Your task to perform on an android device: Search for pizza restaurants on Maps Image 0: 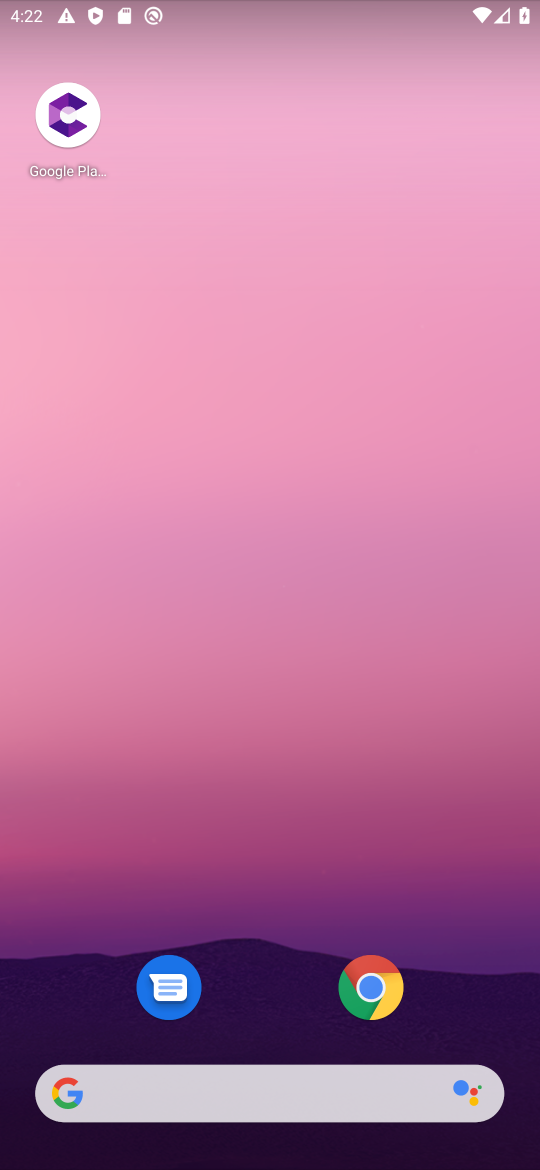
Step 0: drag from (264, 985) to (318, 30)
Your task to perform on an android device: Search for pizza restaurants on Maps Image 1: 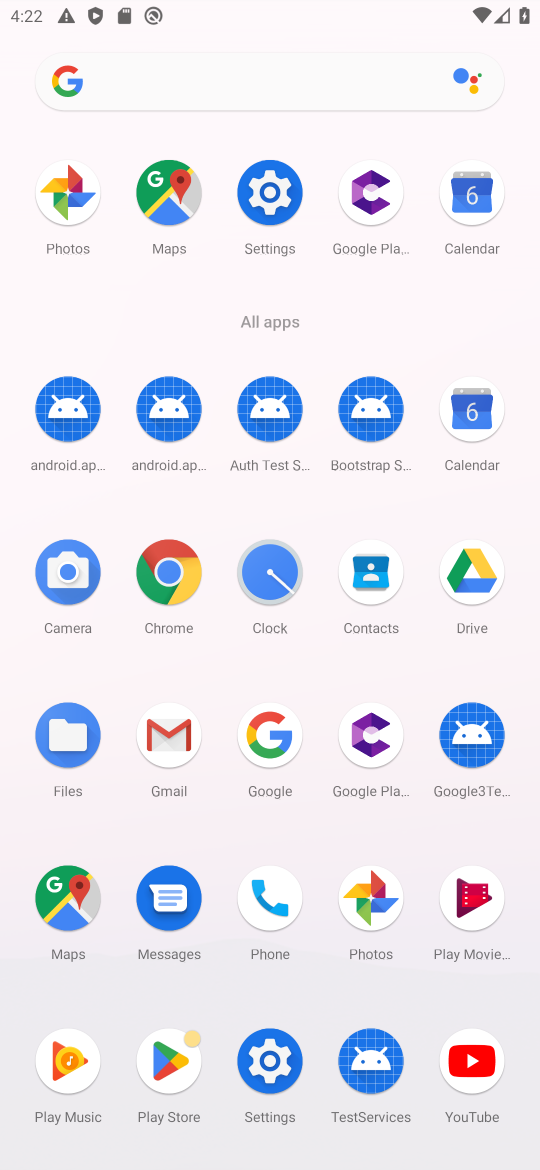
Step 1: click (72, 918)
Your task to perform on an android device: Search for pizza restaurants on Maps Image 2: 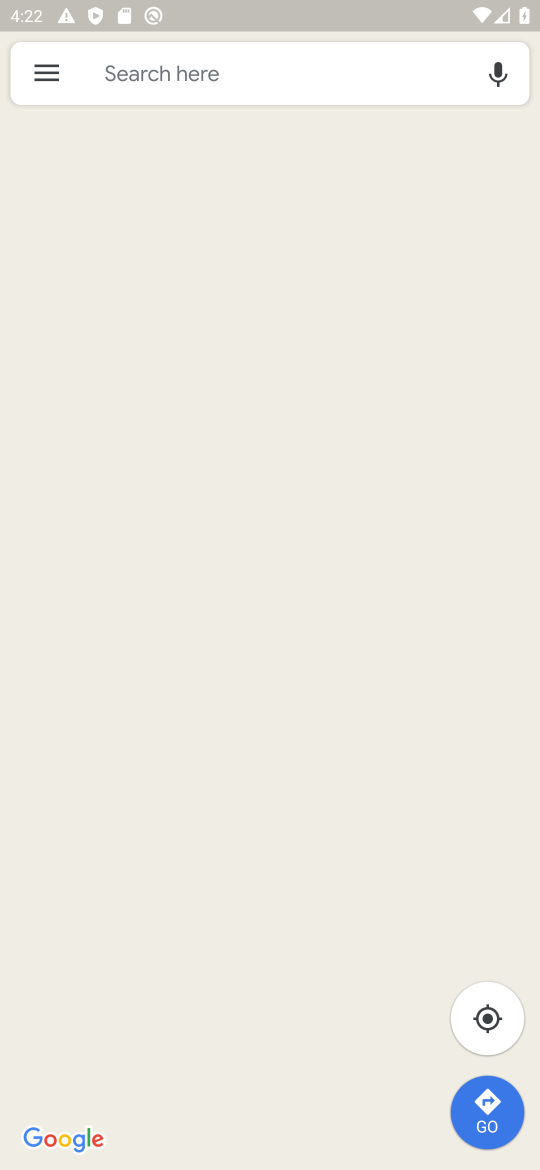
Step 2: click (258, 58)
Your task to perform on an android device: Search for pizza restaurants on Maps Image 3: 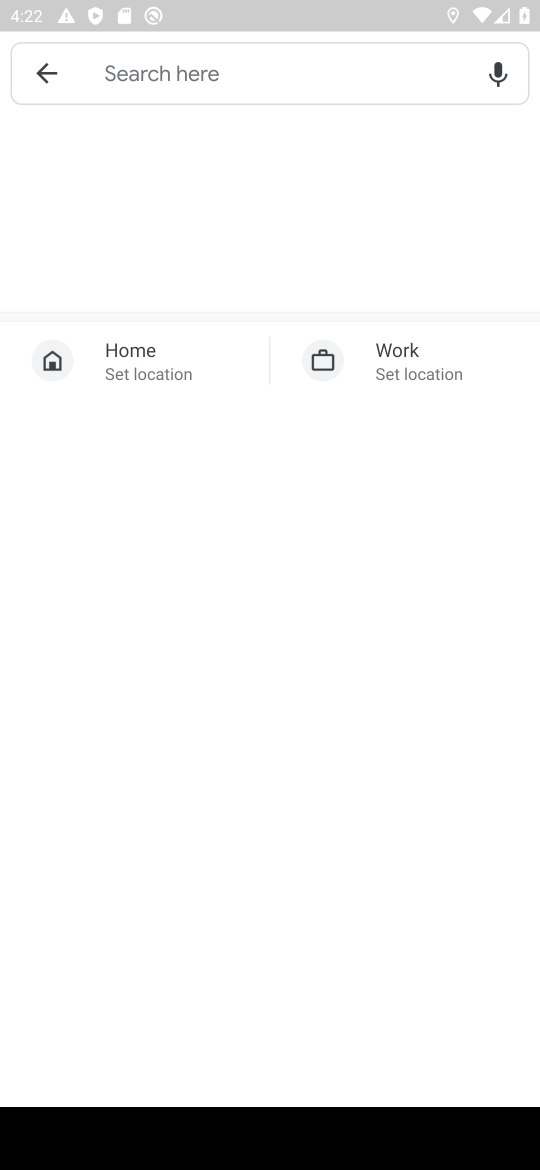
Step 3: type "Pizza restaurants"
Your task to perform on an android device: Search for pizza restaurants on Maps Image 4: 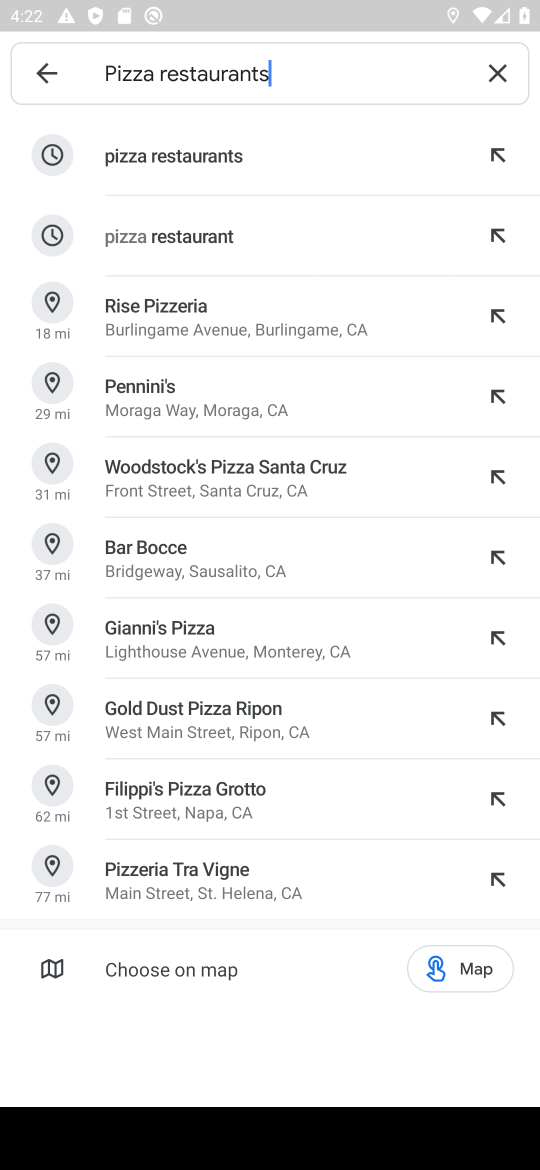
Step 4: click (204, 162)
Your task to perform on an android device: Search for pizza restaurants on Maps Image 5: 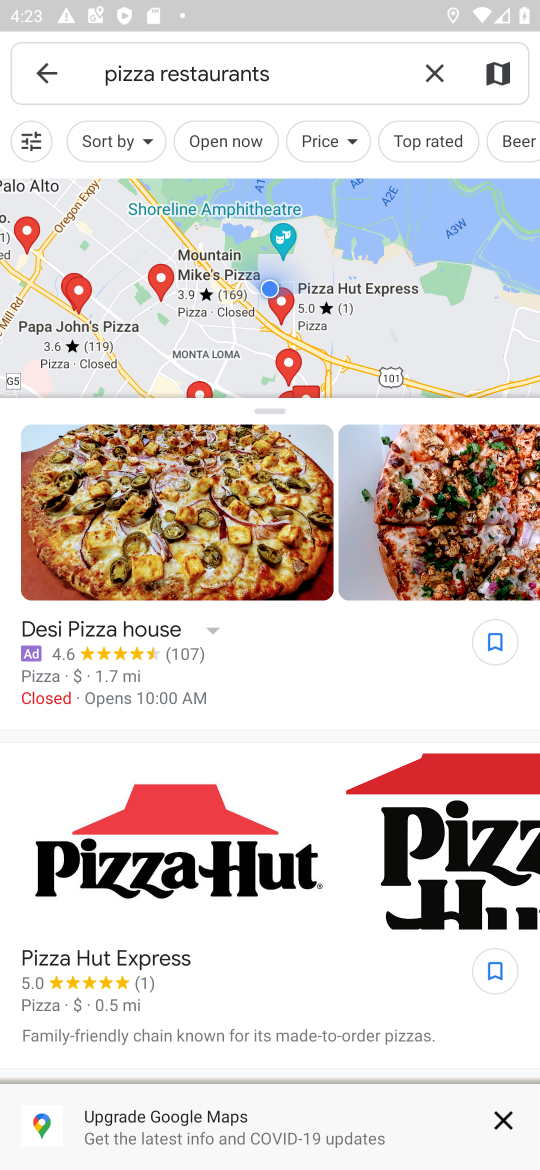
Step 5: task complete